Your task to perform on an android device: add a contact in the contacts app Image 0: 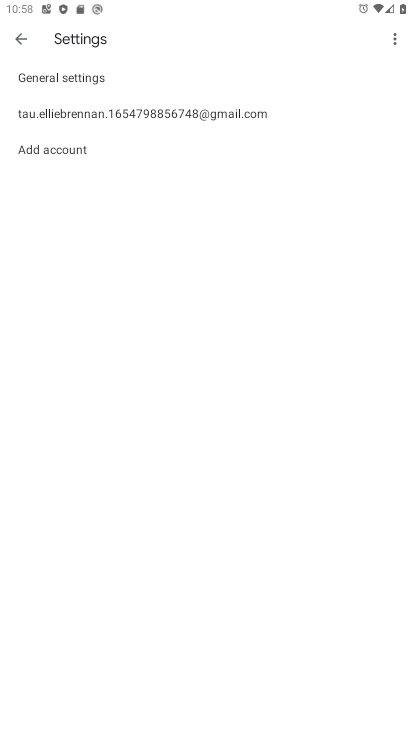
Step 0: press home button
Your task to perform on an android device: add a contact in the contacts app Image 1: 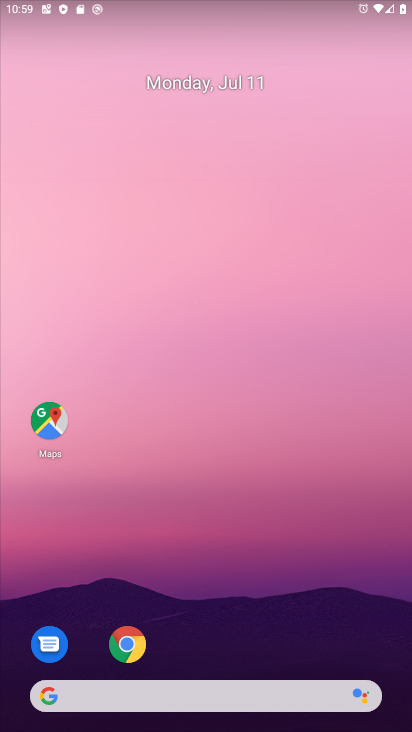
Step 1: drag from (214, 655) to (247, 9)
Your task to perform on an android device: add a contact in the contacts app Image 2: 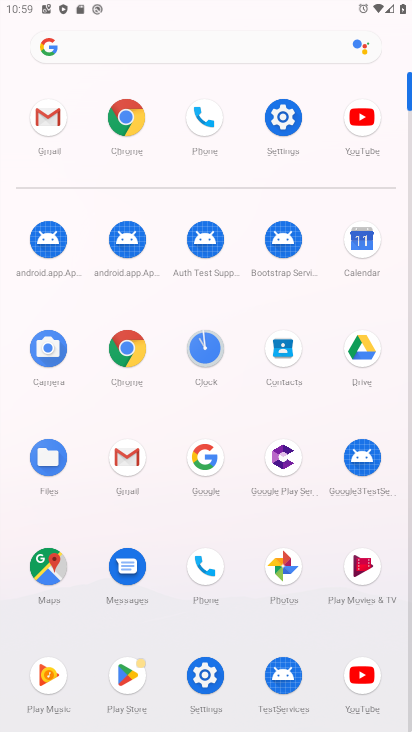
Step 2: click (283, 342)
Your task to perform on an android device: add a contact in the contacts app Image 3: 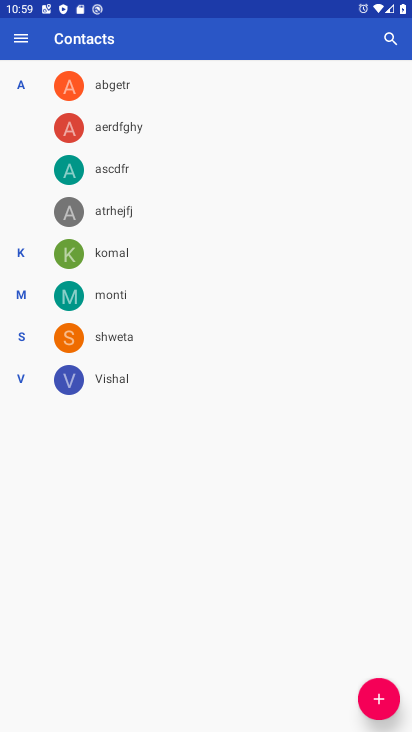
Step 3: click (377, 692)
Your task to perform on an android device: add a contact in the contacts app Image 4: 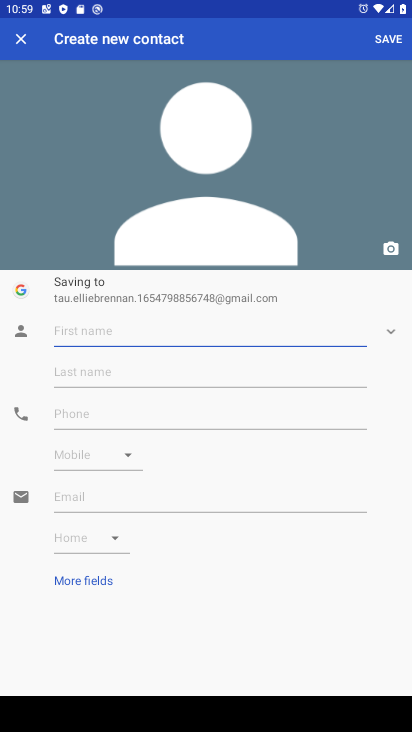
Step 4: type "hfyttdytg"
Your task to perform on an android device: add a contact in the contacts app Image 5: 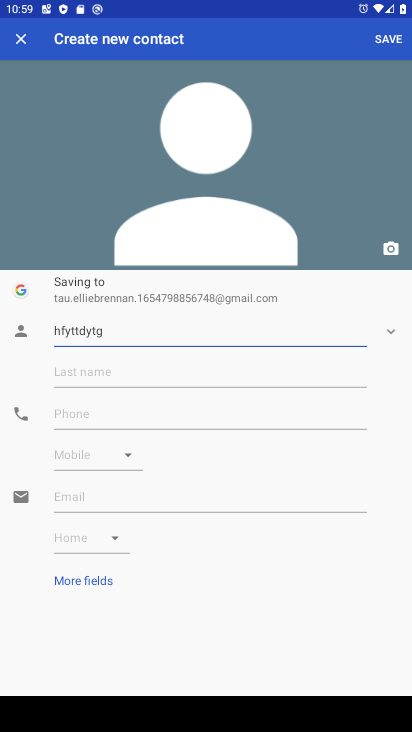
Step 5: click (398, 38)
Your task to perform on an android device: add a contact in the contacts app Image 6: 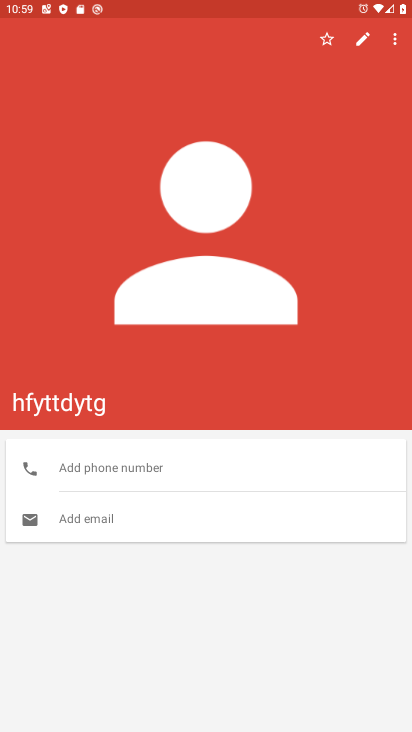
Step 6: task complete